Your task to perform on an android device: turn pop-ups off in chrome Image 0: 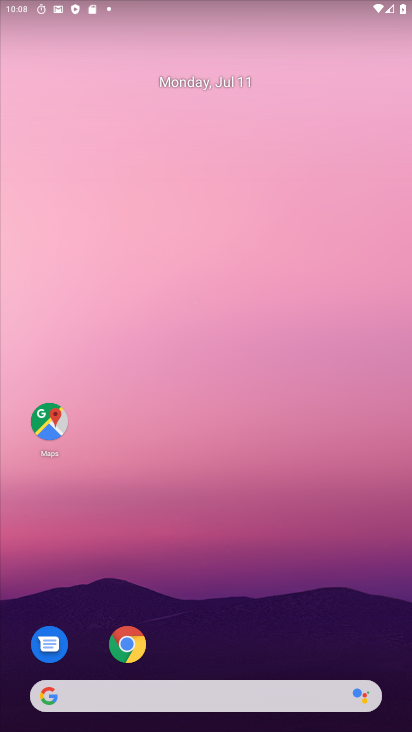
Step 0: click (126, 647)
Your task to perform on an android device: turn pop-ups off in chrome Image 1: 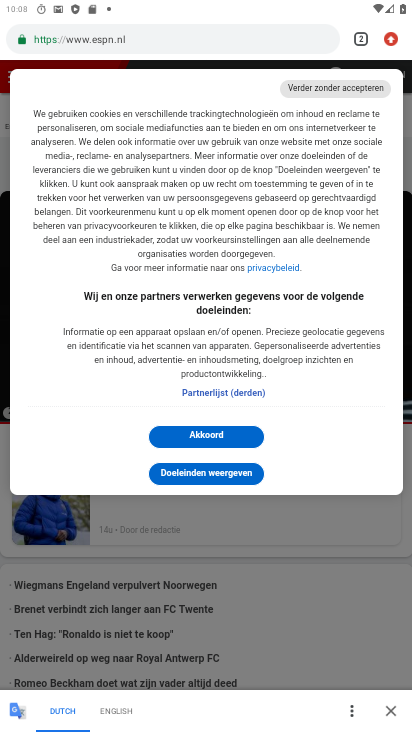
Step 1: click (392, 37)
Your task to perform on an android device: turn pop-ups off in chrome Image 2: 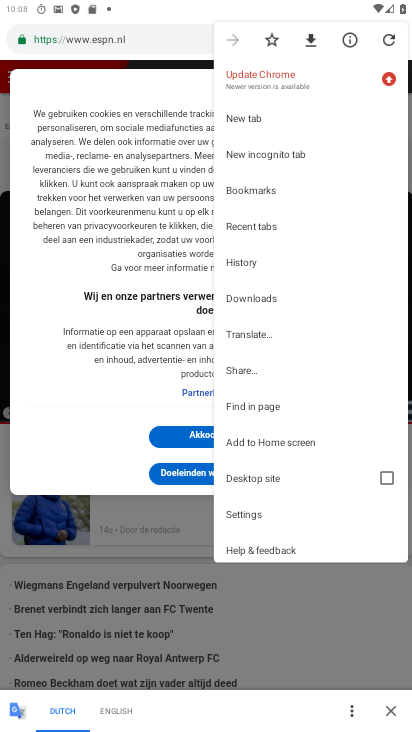
Step 2: click (243, 514)
Your task to perform on an android device: turn pop-ups off in chrome Image 3: 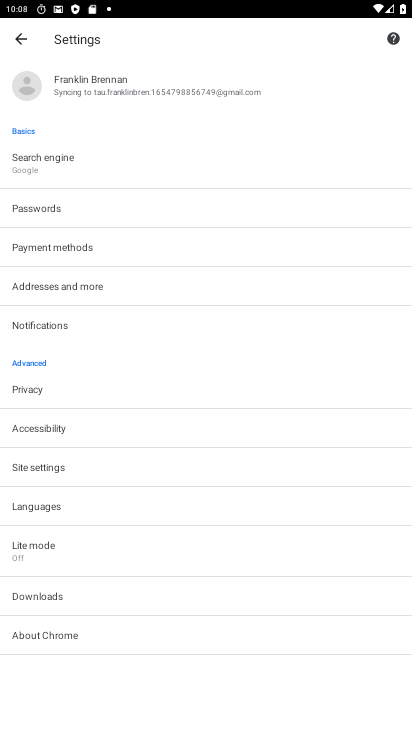
Step 3: click (55, 468)
Your task to perform on an android device: turn pop-ups off in chrome Image 4: 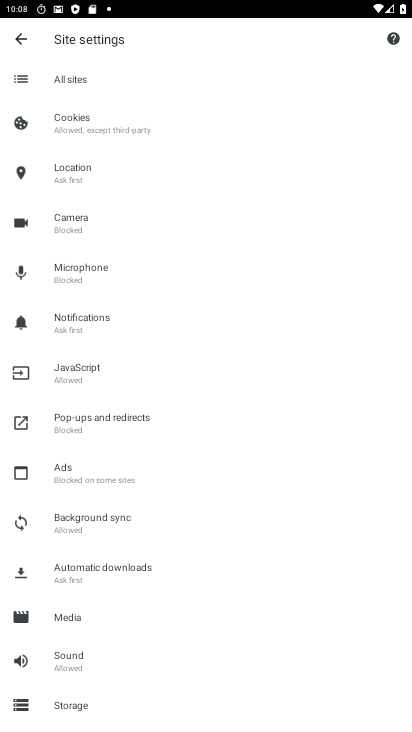
Step 4: click (83, 432)
Your task to perform on an android device: turn pop-ups off in chrome Image 5: 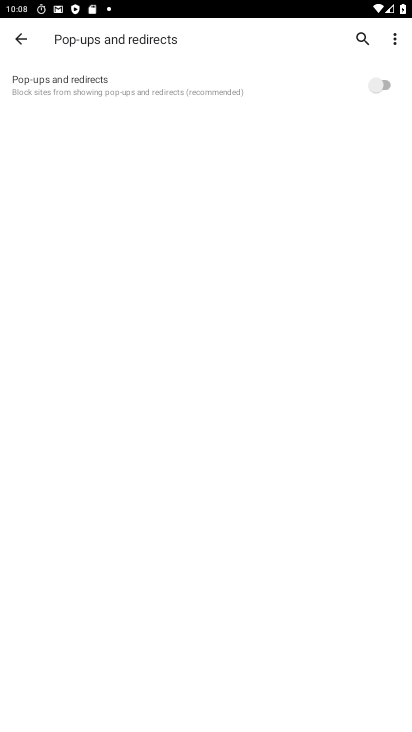
Step 5: task complete